Your task to perform on an android device: Search for the best selling video games at Target Image 0: 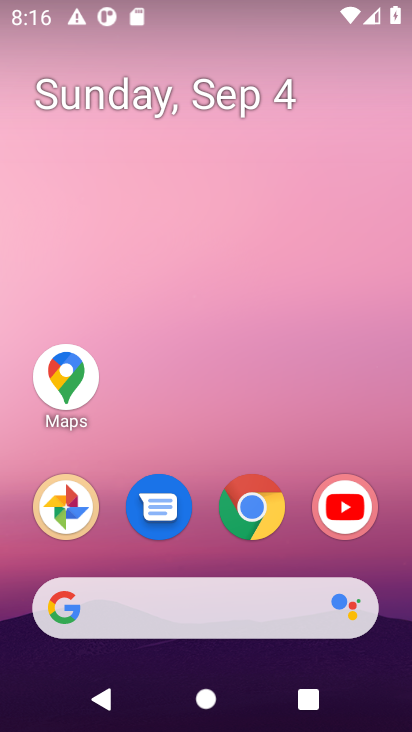
Step 0: click (254, 511)
Your task to perform on an android device: Search for the best selling video games at Target Image 1: 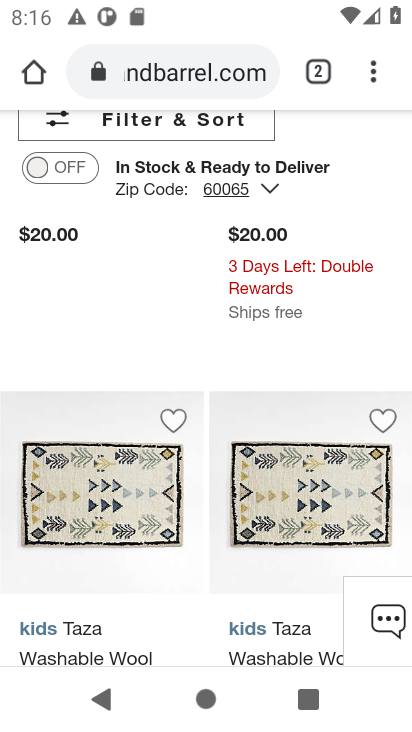
Step 1: click (193, 52)
Your task to perform on an android device: Search for the best selling video games at Target Image 2: 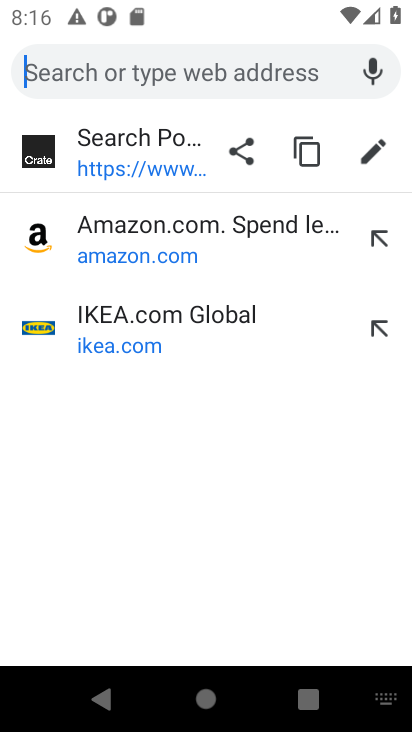
Step 2: type "Target"
Your task to perform on an android device: Search for the best selling video games at Target Image 3: 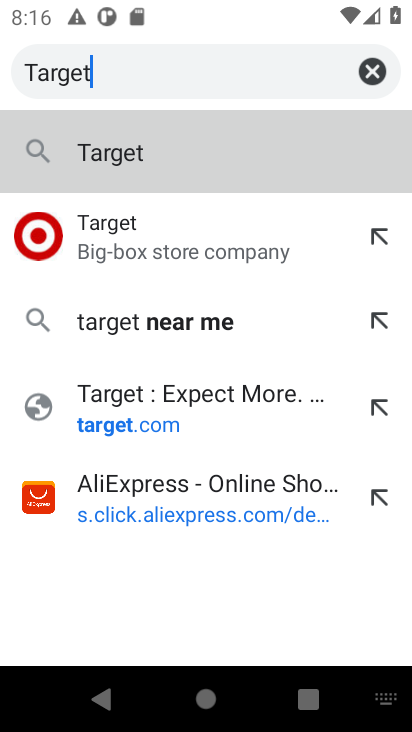
Step 3: click (107, 217)
Your task to perform on an android device: Search for the best selling video games at Target Image 4: 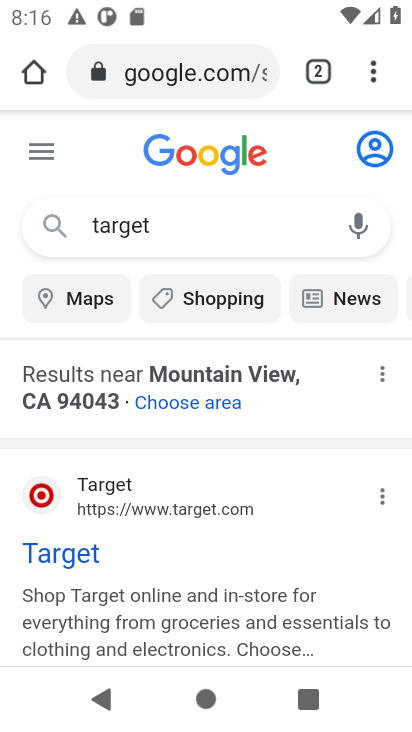
Step 4: click (110, 480)
Your task to perform on an android device: Search for the best selling video games at Target Image 5: 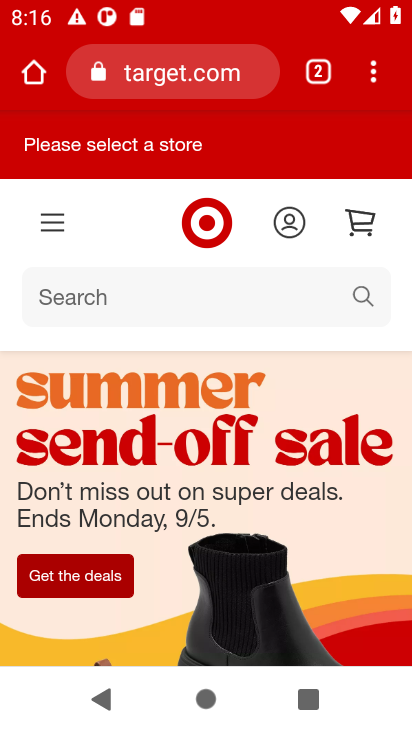
Step 5: click (87, 298)
Your task to perform on an android device: Search for the best selling video games at Target Image 6: 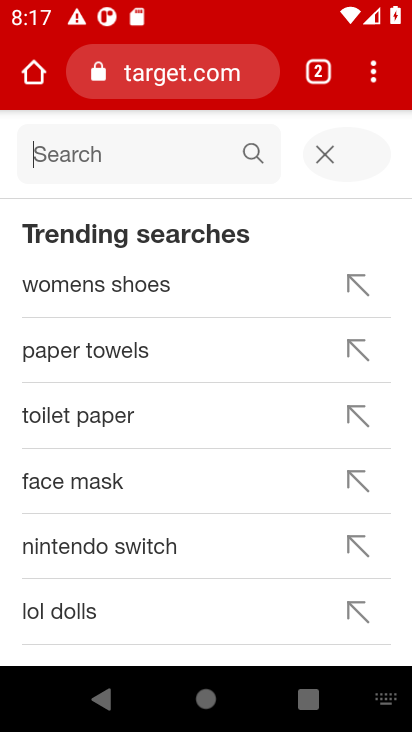
Step 6: type "best selling video games"
Your task to perform on an android device: Search for the best selling video games at Target Image 7: 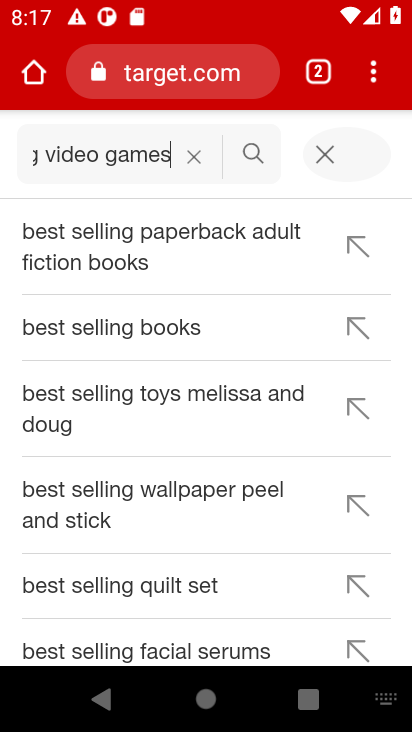
Step 7: click (258, 157)
Your task to perform on an android device: Search for the best selling video games at Target Image 8: 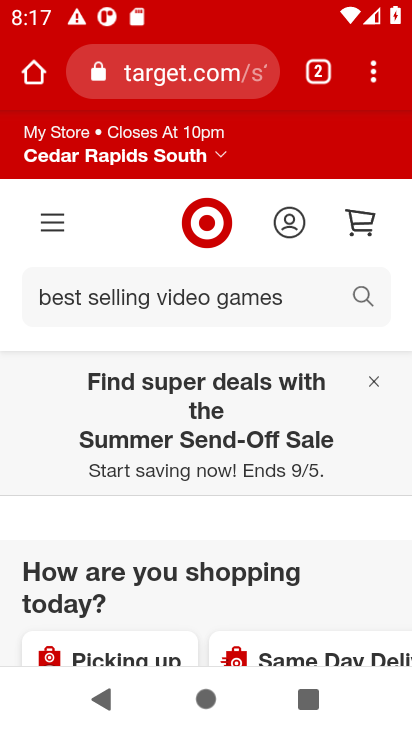
Step 8: task complete